Your task to perform on an android device: Open Chrome and go to settings Image 0: 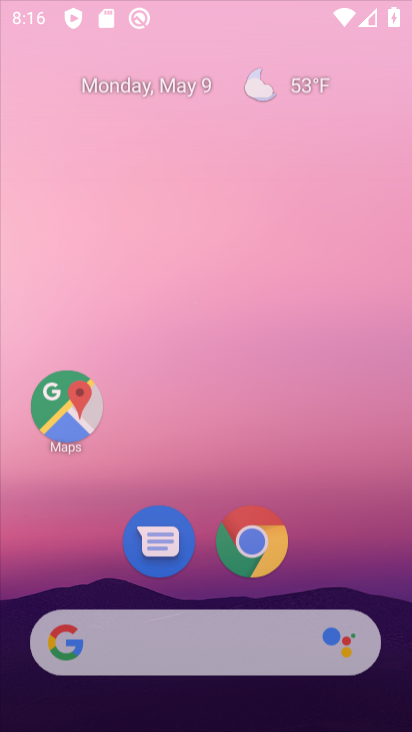
Step 0: click (198, 91)
Your task to perform on an android device: Open Chrome and go to settings Image 1: 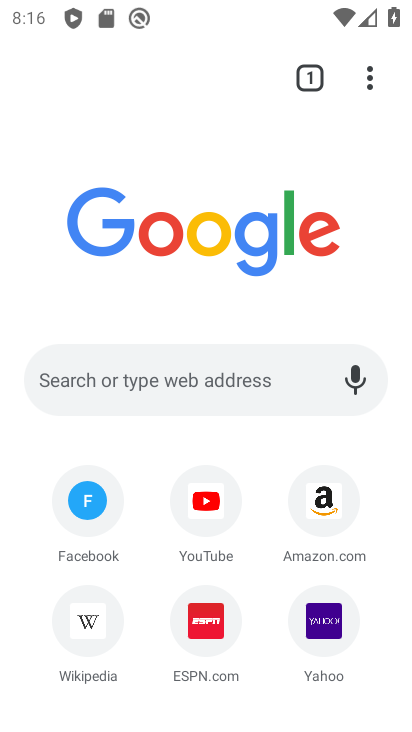
Step 1: click (368, 71)
Your task to perform on an android device: Open Chrome and go to settings Image 2: 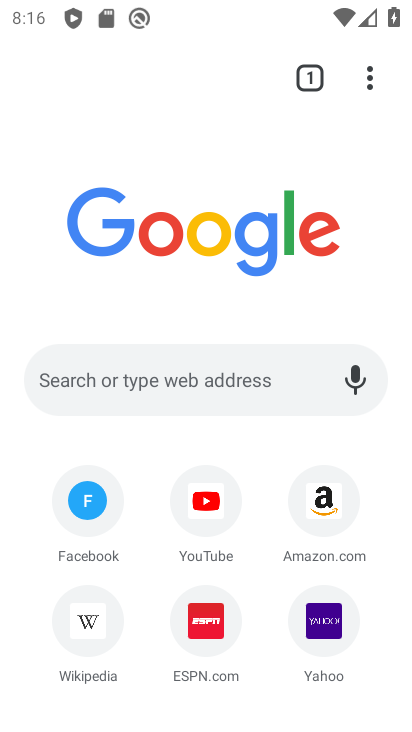
Step 2: drag from (368, 75) to (82, 627)
Your task to perform on an android device: Open Chrome and go to settings Image 3: 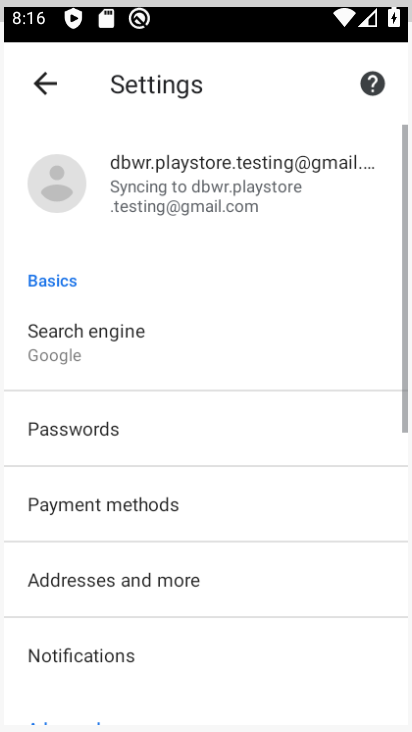
Step 3: click (80, 616)
Your task to perform on an android device: Open Chrome and go to settings Image 4: 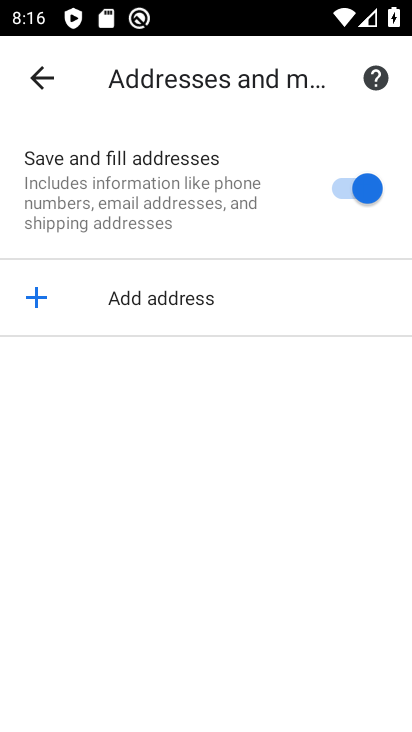
Step 4: click (33, 77)
Your task to perform on an android device: Open Chrome and go to settings Image 5: 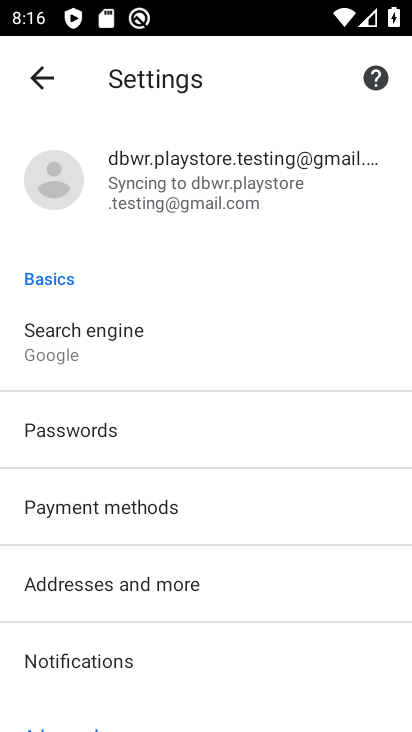
Step 5: task complete